Your task to perform on an android device: set an alarm Image 0: 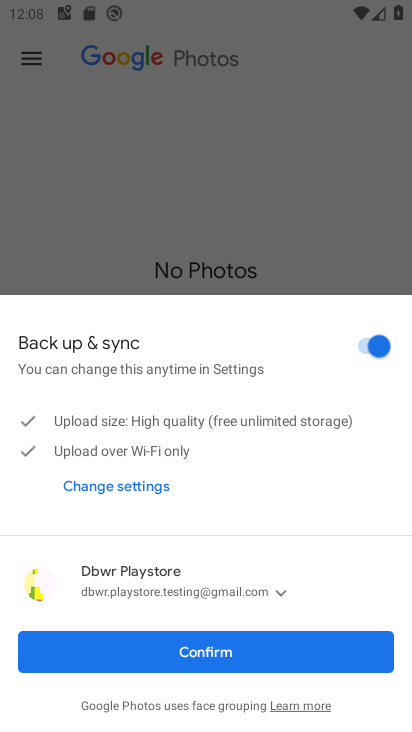
Step 0: press home button
Your task to perform on an android device: set an alarm Image 1: 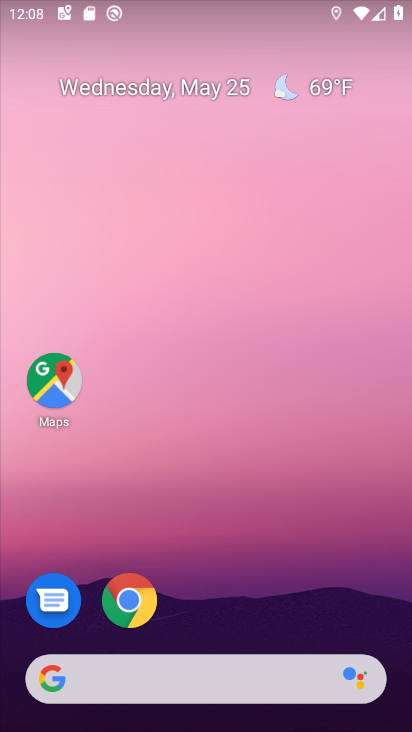
Step 1: drag from (374, 610) to (355, 188)
Your task to perform on an android device: set an alarm Image 2: 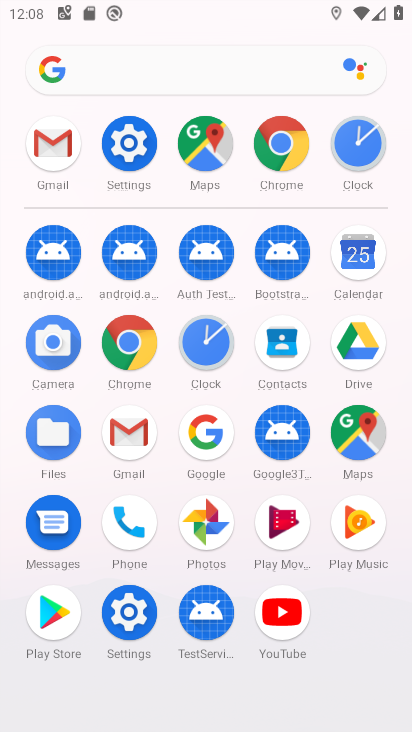
Step 2: click (205, 353)
Your task to perform on an android device: set an alarm Image 3: 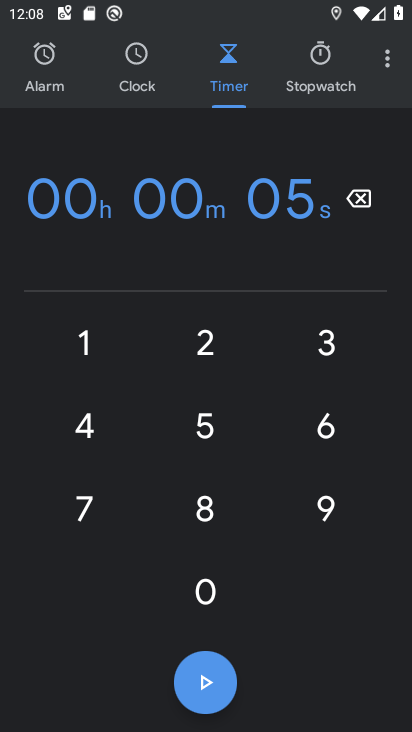
Step 3: click (45, 74)
Your task to perform on an android device: set an alarm Image 4: 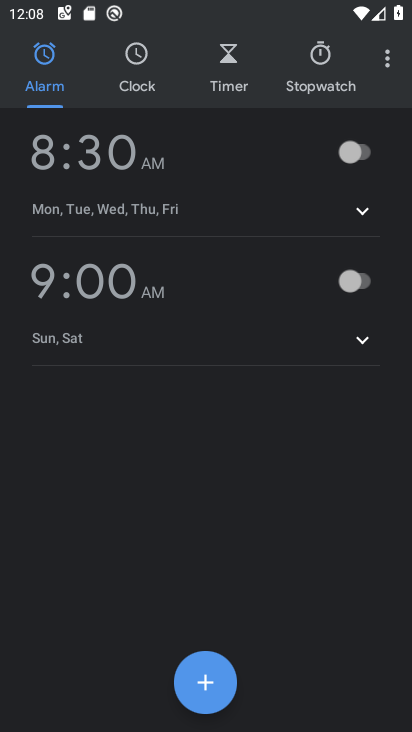
Step 4: click (199, 682)
Your task to perform on an android device: set an alarm Image 5: 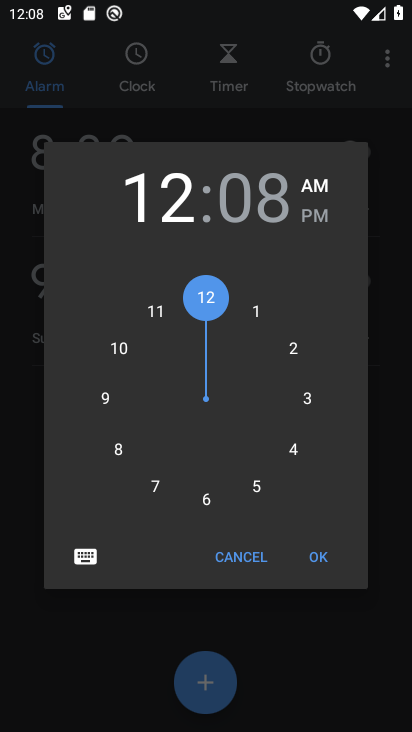
Step 5: click (312, 559)
Your task to perform on an android device: set an alarm Image 6: 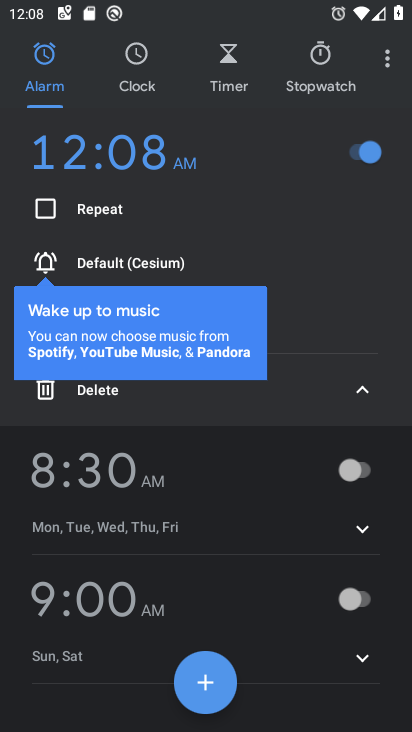
Step 6: task complete